Your task to perform on an android device: turn off priority inbox in the gmail app Image 0: 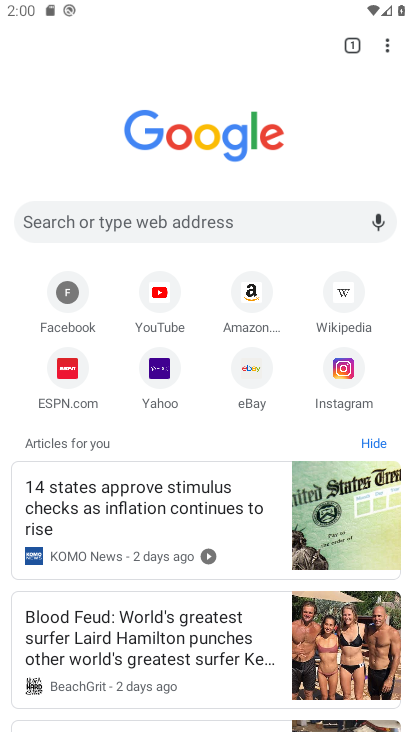
Step 0: press home button
Your task to perform on an android device: turn off priority inbox in the gmail app Image 1: 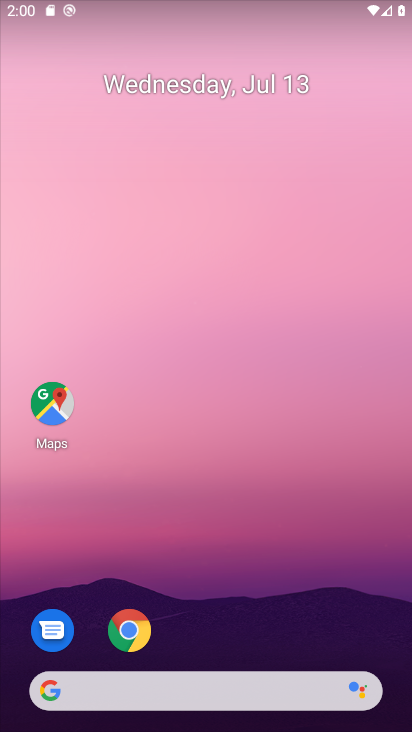
Step 1: drag from (192, 615) to (223, 244)
Your task to perform on an android device: turn off priority inbox in the gmail app Image 2: 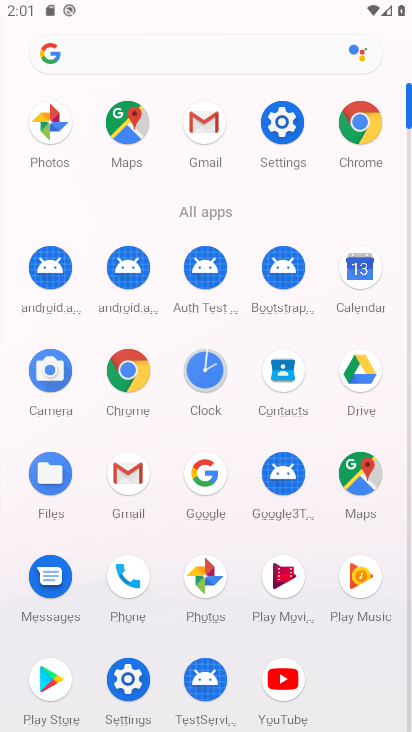
Step 2: click (129, 488)
Your task to perform on an android device: turn off priority inbox in the gmail app Image 3: 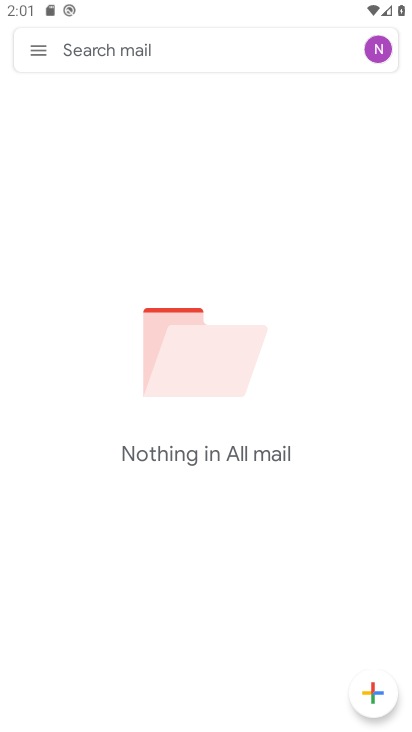
Step 3: click (53, 53)
Your task to perform on an android device: turn off priority inbox in the gmail app Image 4: 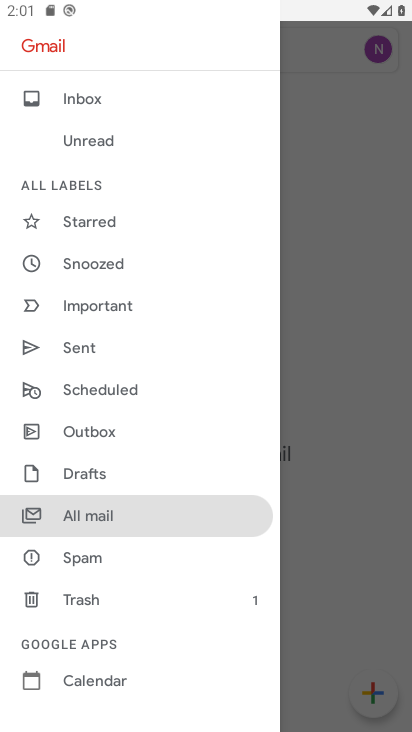
Step 4: drag from (76, 645) to (110, 620)
Your task to perform on an android device: turn off priority inbox in the gmail app Image 5: 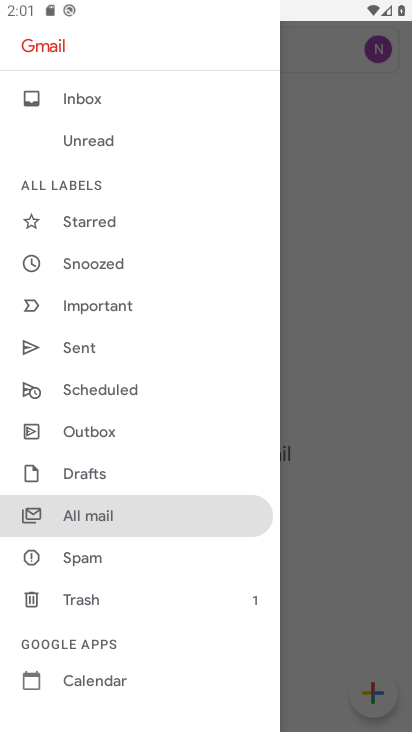
Step 5: drag from (114, 505) to (158, 327)
Your task to perform on an android device: turn off priority inbox in the gmail app Image 6: 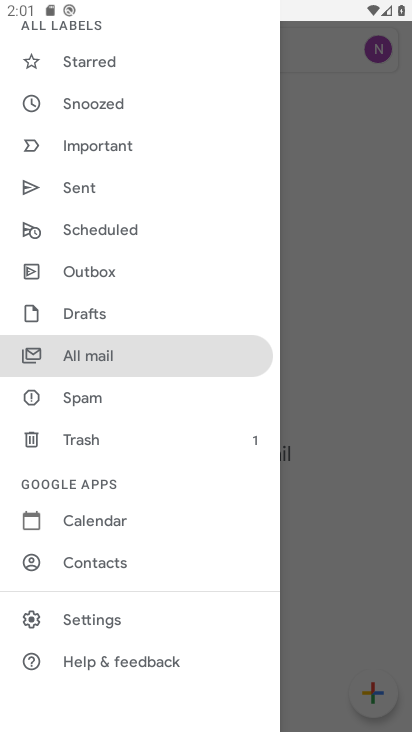
Step 6: click (90, 622)
Your task to perform on an android device: turn off priority inbox in the gmail app Image 7: 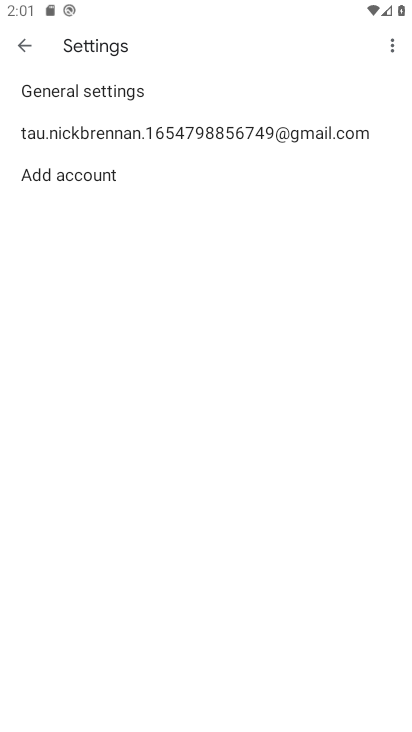
Step 7: click (228, 140)
Your task to perform on an android device: turn off priority inbox in the gmail app Image 8: 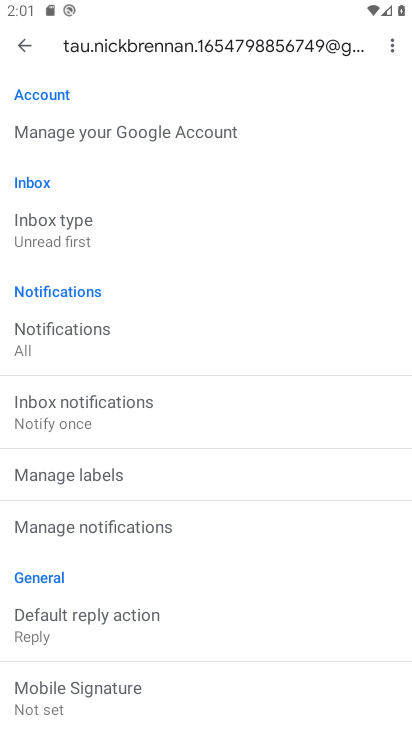
Step 8: drag from (159, 398) to (194, 246)
Your task to perform on an android device: turn off priority inbox in the gmail app Image 9: 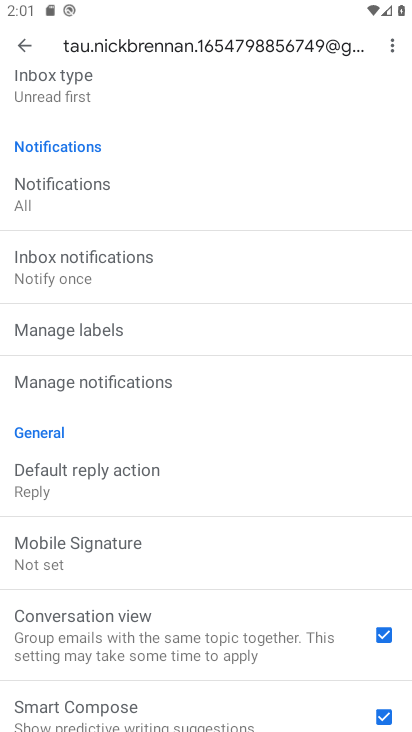
Step 9: drag from (178, 277) to (123, 712)
Your task to perform on an android device: turn off priority inbox in the gmail app Image 10: 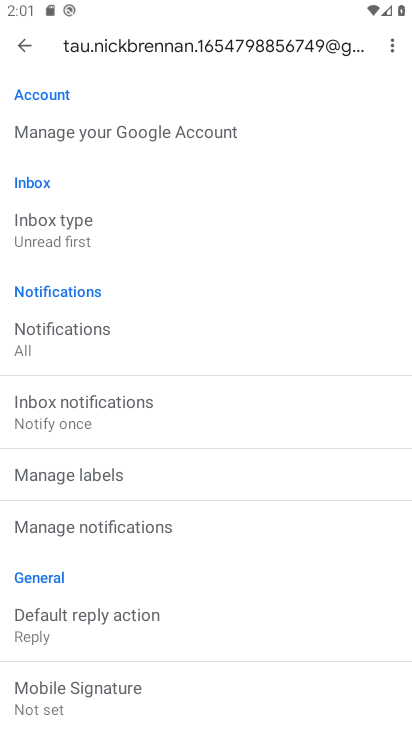
Step 10: click (115, 611)
Your task to perform on an android device: turn off priority inbox in the gmail app Image 11: 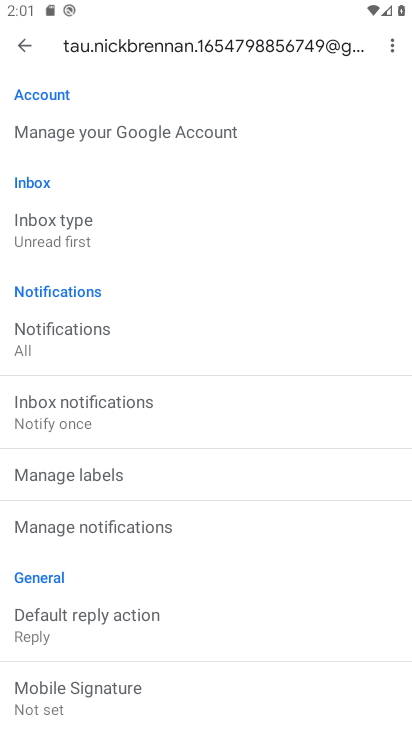
Step 11: click (105, 229)
Your task to perform on an android device: turn off priority inbox in the gmail app Image 12: 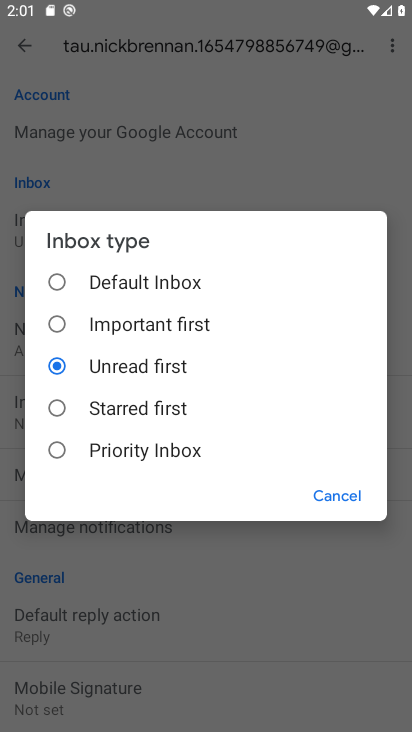
Step 12: task complete